Your task to perform on an android device: Open calendar and show me the first week of next month Image 0: 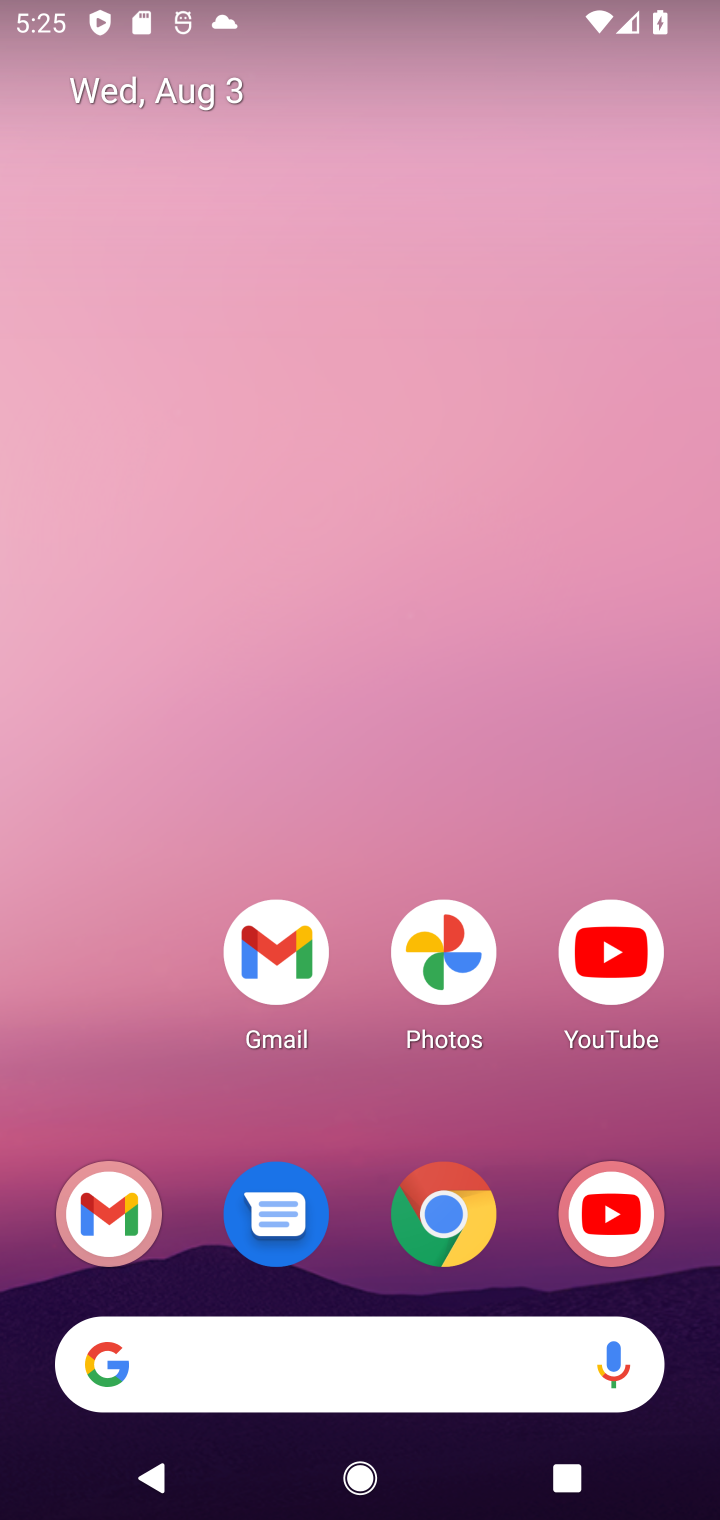
Step 0: drag from (171, 1155) to (709, 271)
Your task to perform on an android device: Open calendar and show me the first week of next month Image 1: 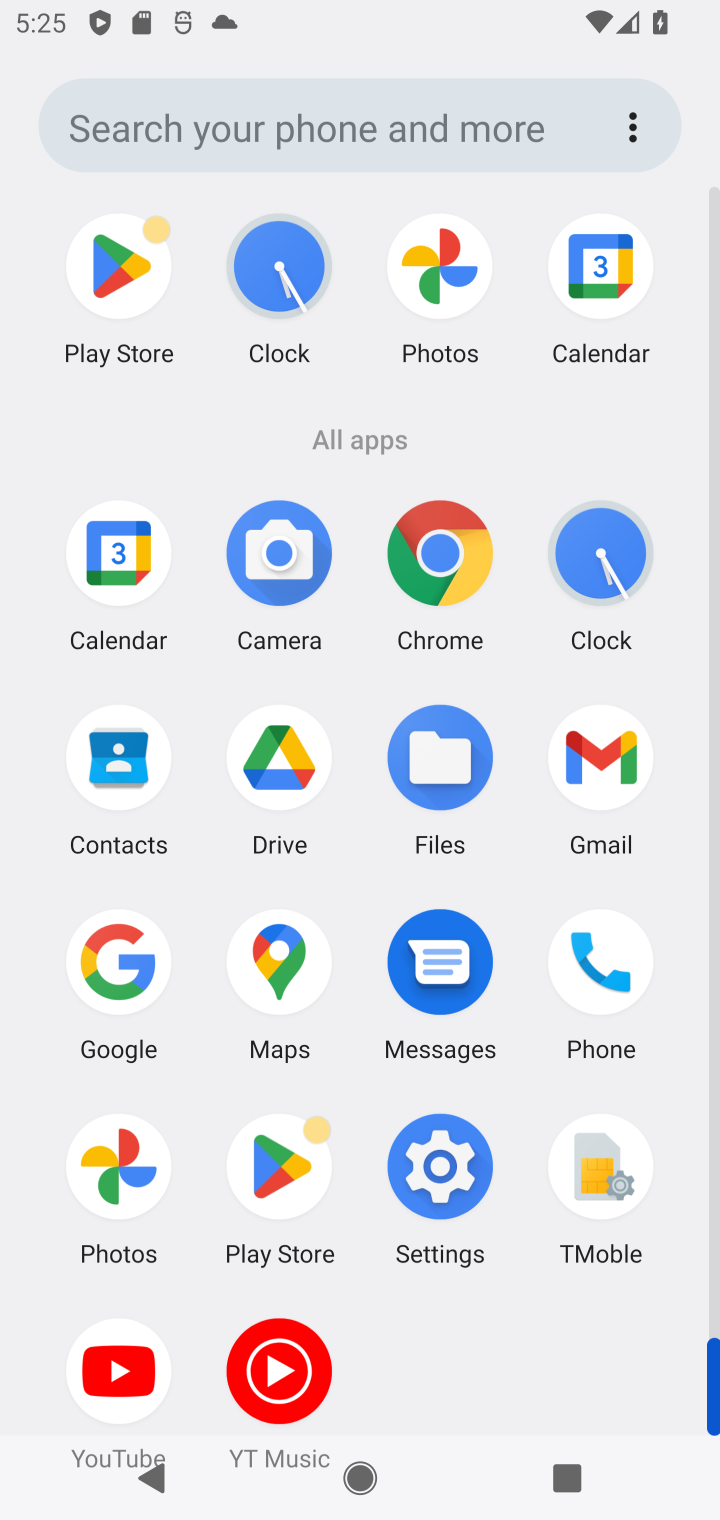
Step 1: click (609, 281)
Your task to perform on an android device: Open calendar and show me the first week of next month Image 2: 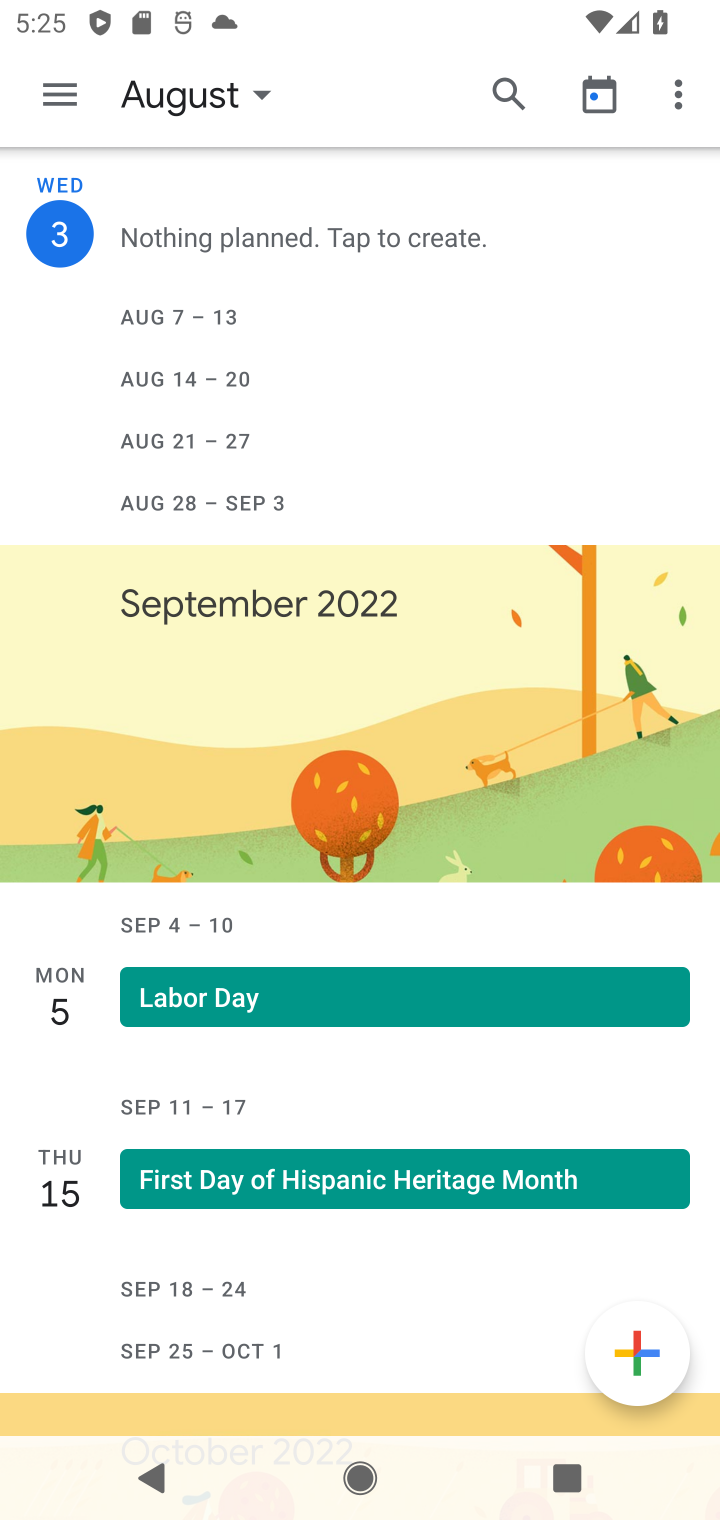
Step 2: click (227, 111)
Your task to perform on an android device: Open calendar and show me the first week of next month Image 3: 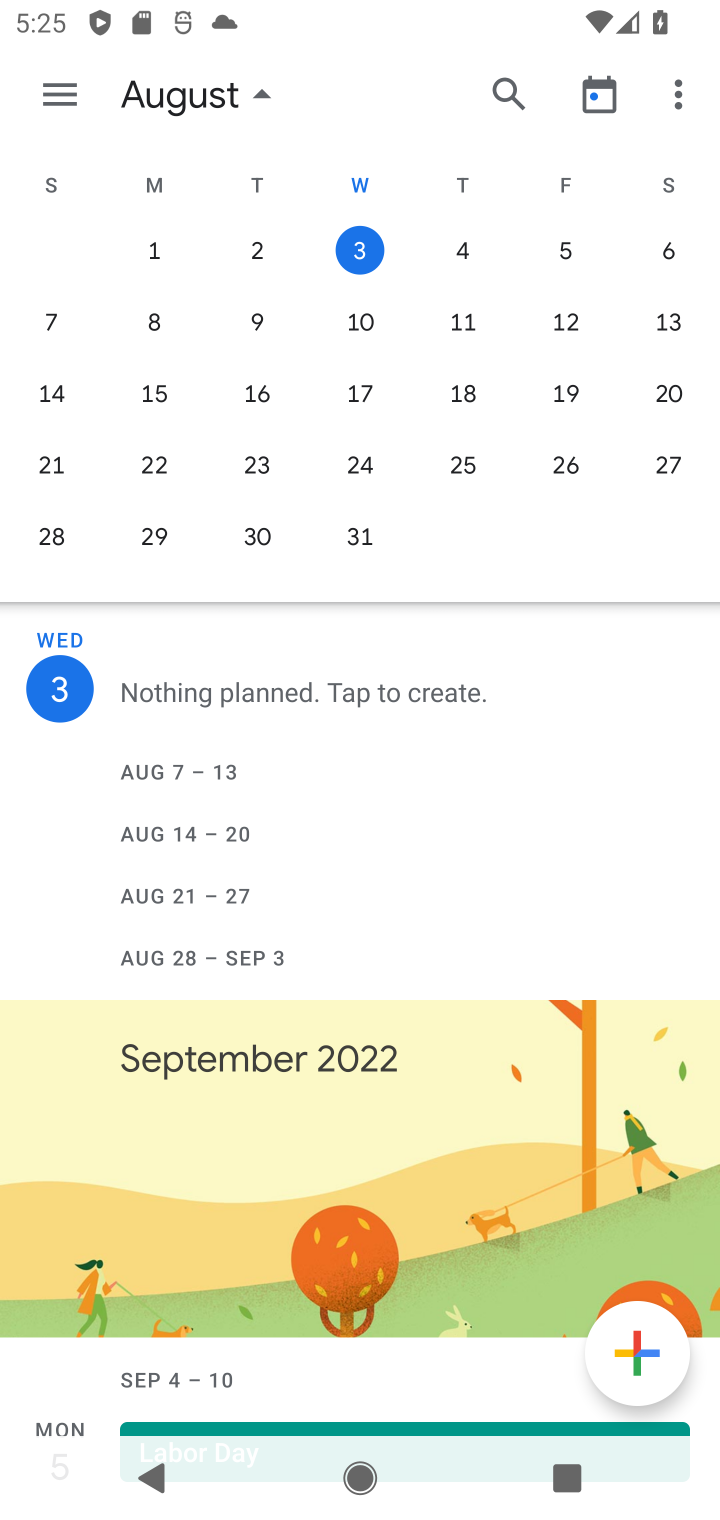
Step 3: drag from (504, 423) to (5, 588)
Your task to perform on an android device: Open calendar and show me the first week of next month Image 4: 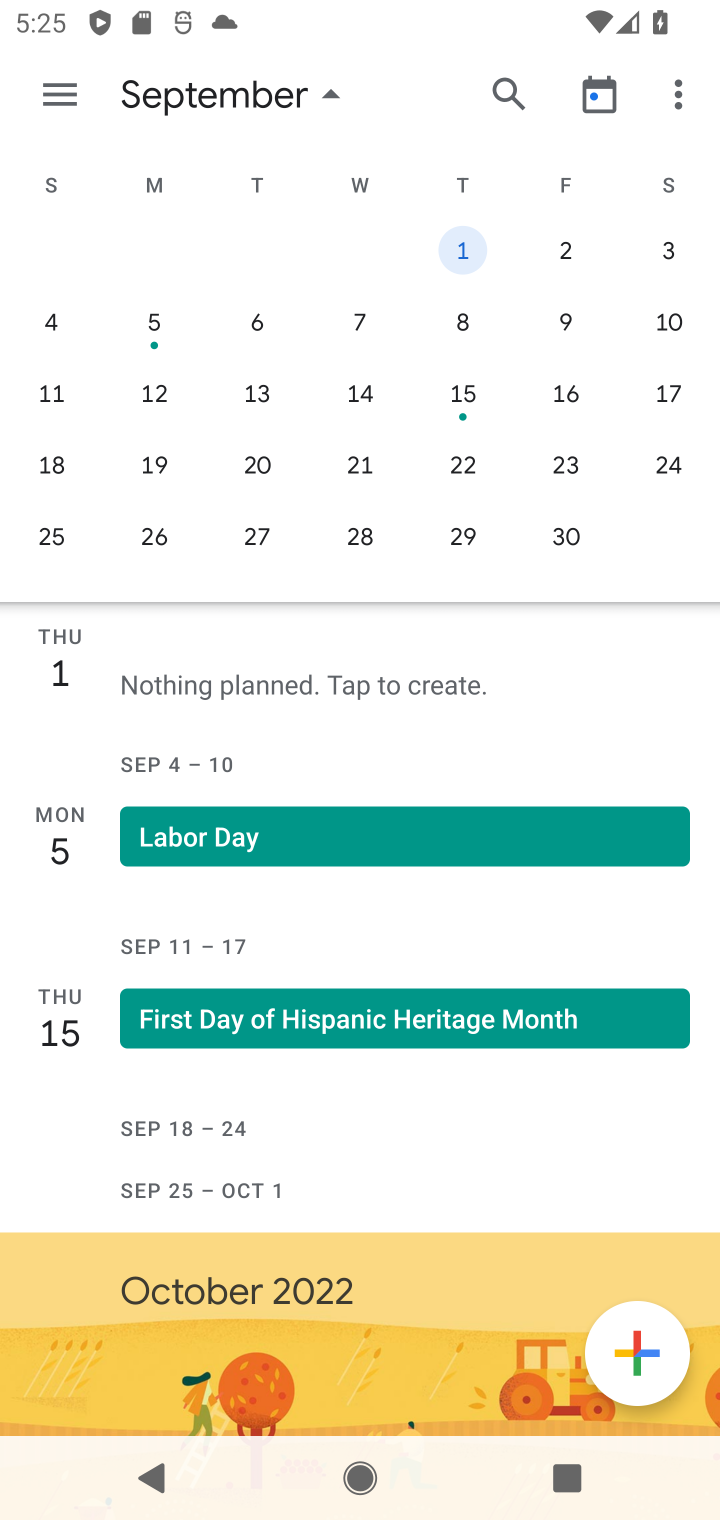
Step 4: click (348, 338)
Your task to perform on an android device: Open calendar and show me the first week of next month Image 5: 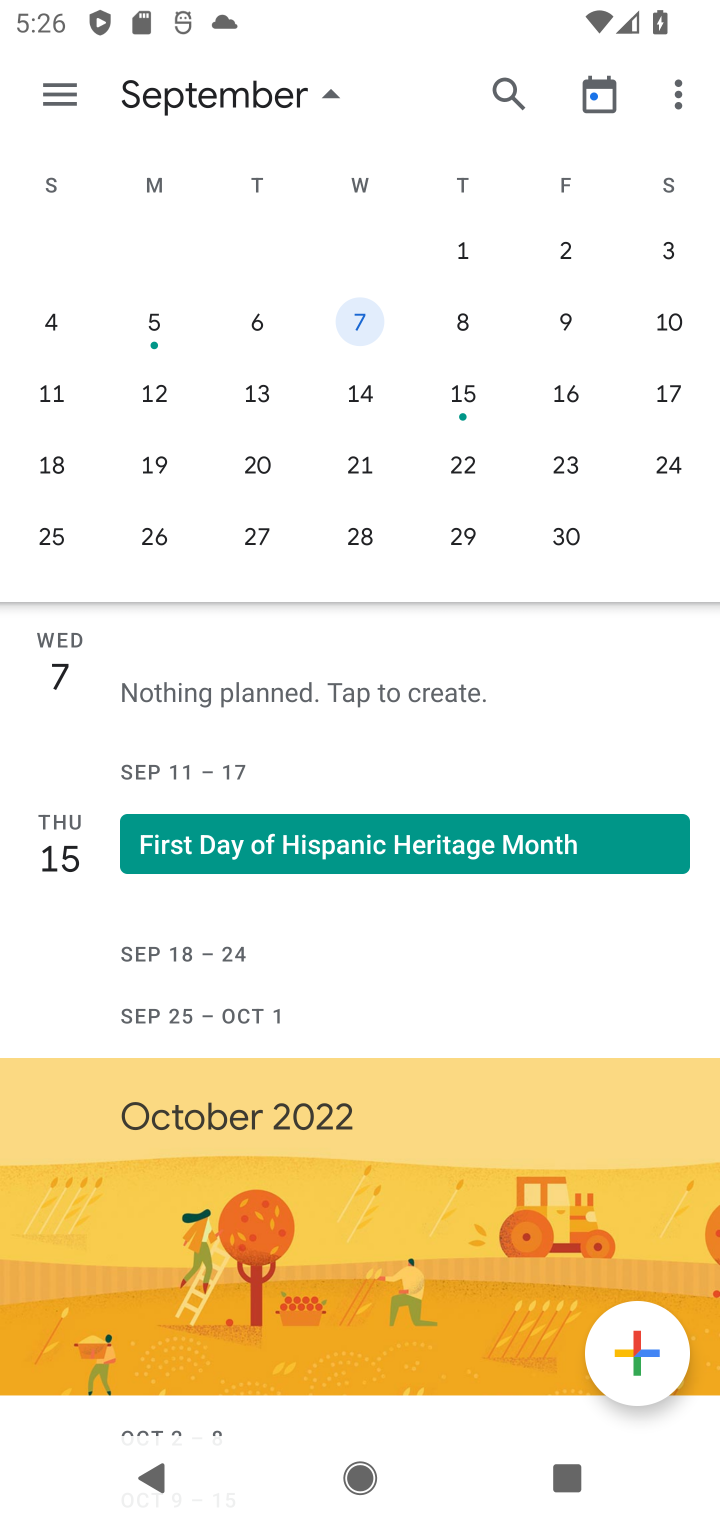
Step 5: task complete